Your task to perform on an android device: change notification settings in the gmail app Image 0: 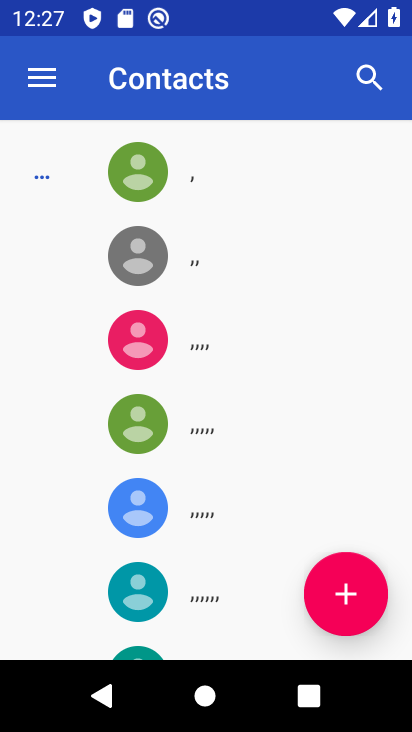
Step 0: press home button
Your task to perform on an android device: change notification settings in the gmail app Image 1: 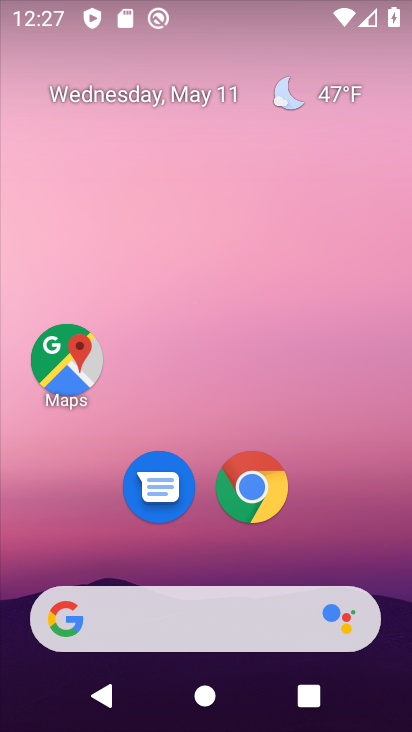
Step 1: drag from (261, 558) to (283, 149)
Your task to perform on an android device: change notification settings in the gmail app Image 2: 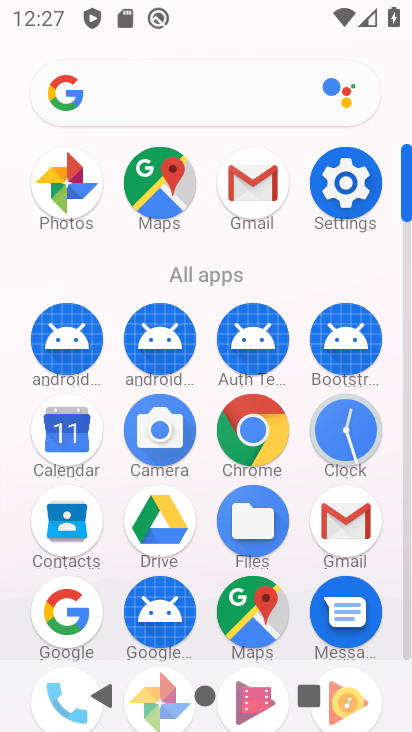
Step 2: click (316, 517)
Your task to perform on an android device: change notification settings in the gmail app Image 3: 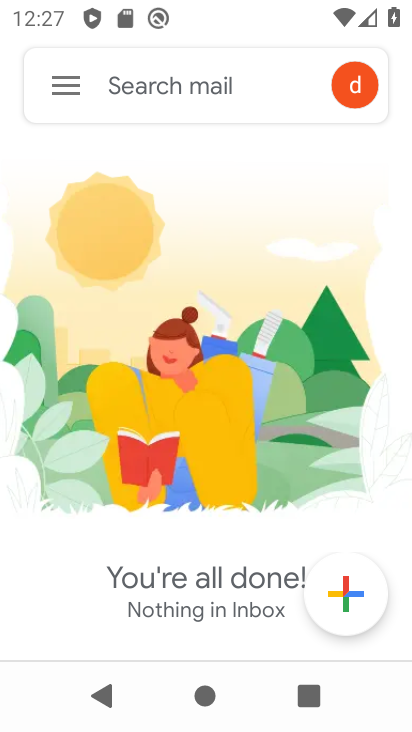
Step 3: click (71, 84)
Your task to perform on an android device: change notification settings in the gmail app Image 4: 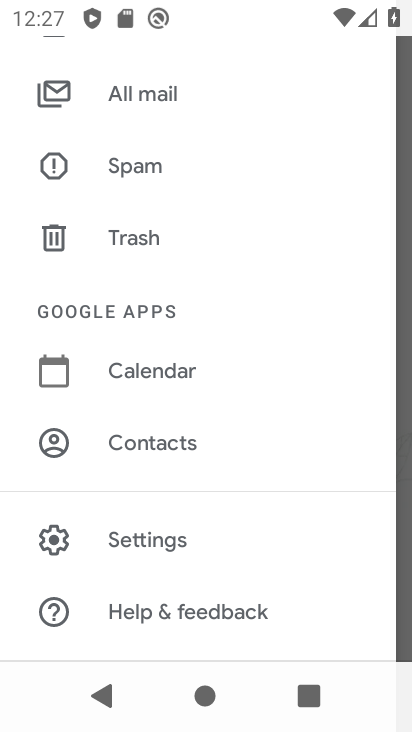
Step 4: click (160, 538)
Your task to perform on an android device: change notification settings in the gmail app Image 5: 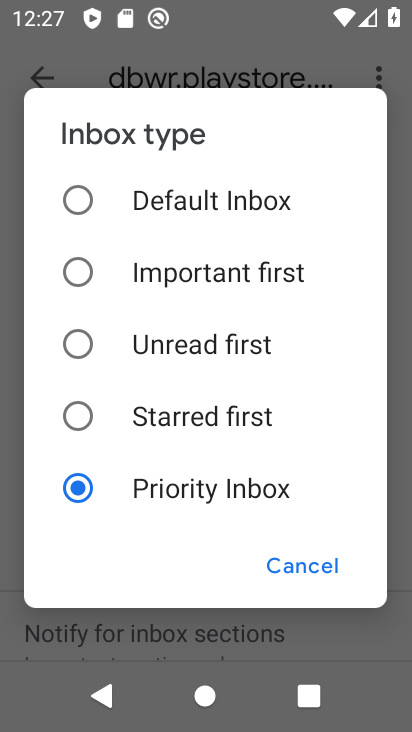
Step 5: press back button
Your task to perform on an android device: change notification settings in the gmail app Image 6: 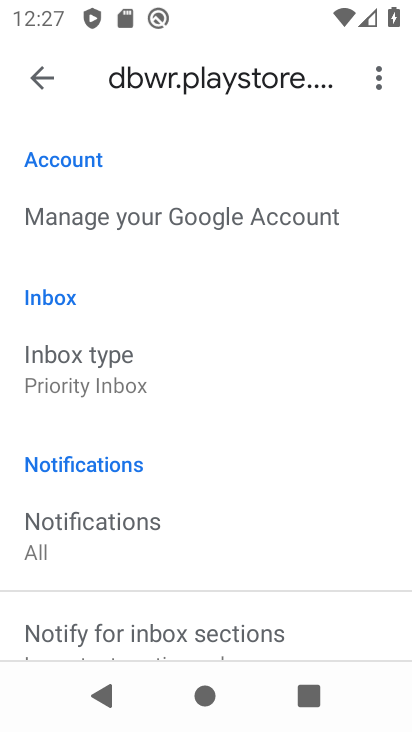
Step 6: click (156, 532)
Your task to perform on an android device: change notification settings in the gmail app Image 7: 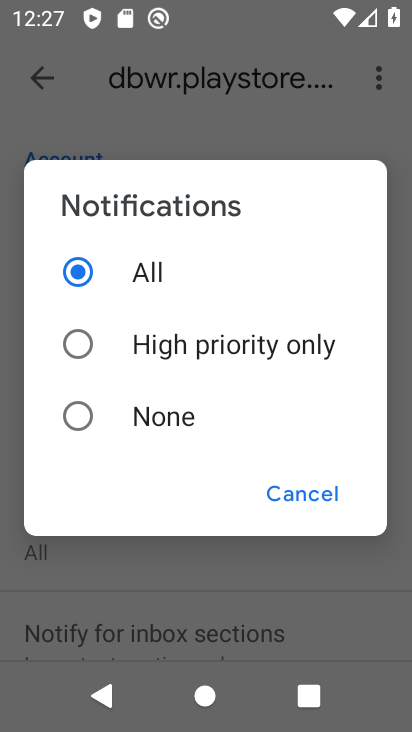
Step 7: click (136, 351)
Your task to perform on an android device: change notification settings in the gmail app Image 8: 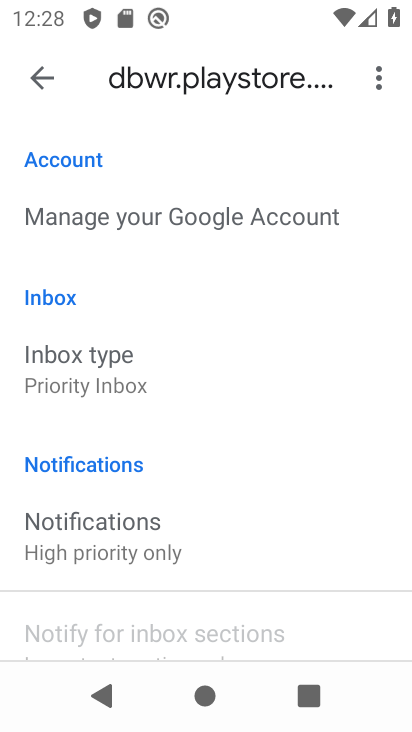
Step 8: drag from (161, 527) to (184, 365)
Your task to perform on an android device: change notification settings in the gmail app Image 9: 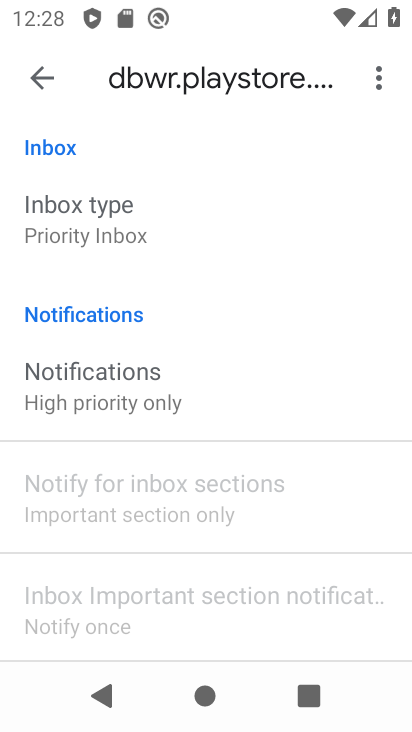
Step 9: click (134, 398)
Your task to perform on an android device: change notification settings in the gmail app Image 10: 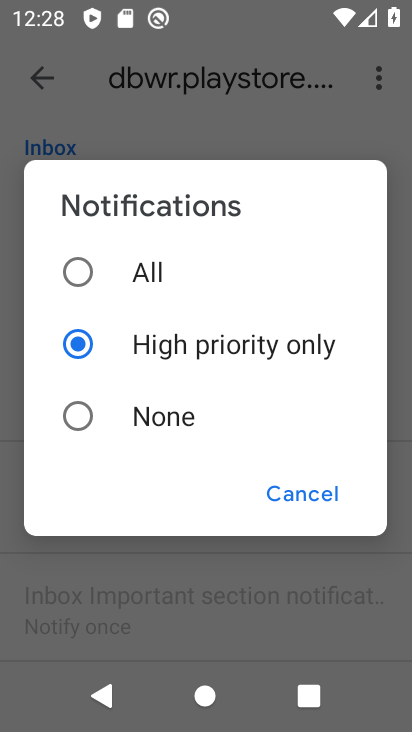
Step 10: click (189, 420)
Your task to perform on an android device: change notification settings in the gmail app Image 11: 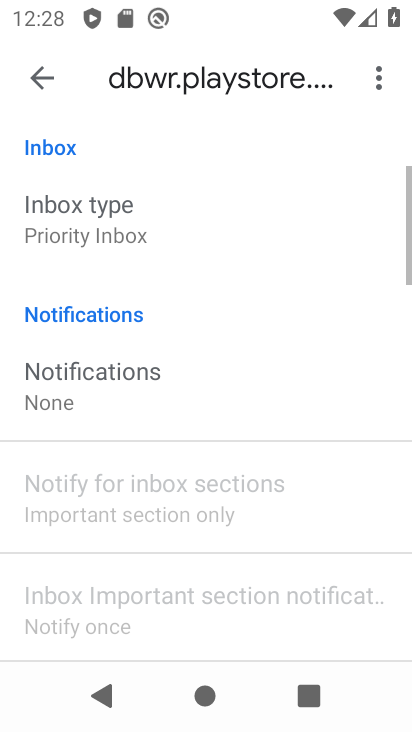
Step 11: task complete